Your task to perform on an android device: turn off sleep mode Image 0: 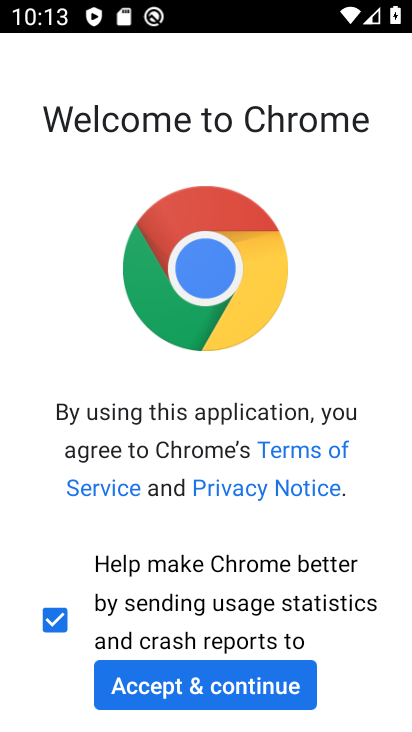
Step 0: click (143, 682)
Your task to perform on an android device: turn off sleep mode Image 1: 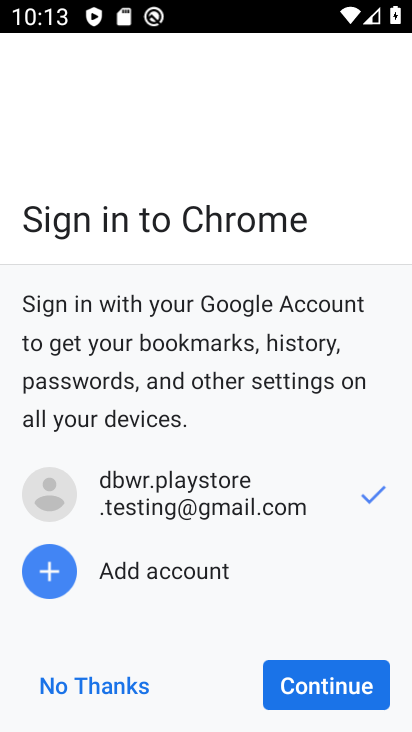
Step 1: click (282, 699)
Your task to perform on an android device: turn off sleep mode Image 2: 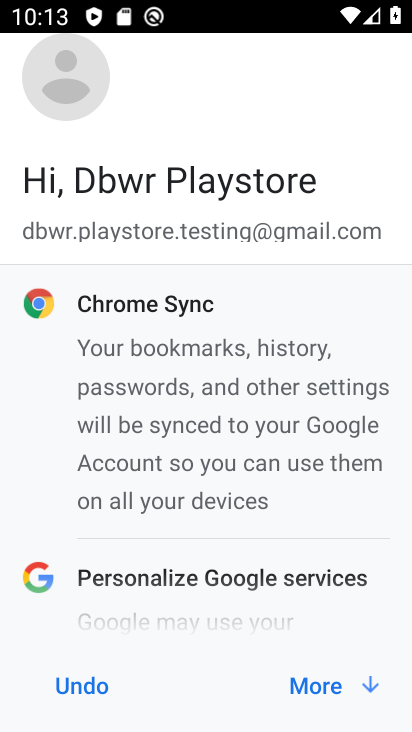
Step 2: click (302, 690)
Your task to perform on an android device: turn off sleep mode Image 3: 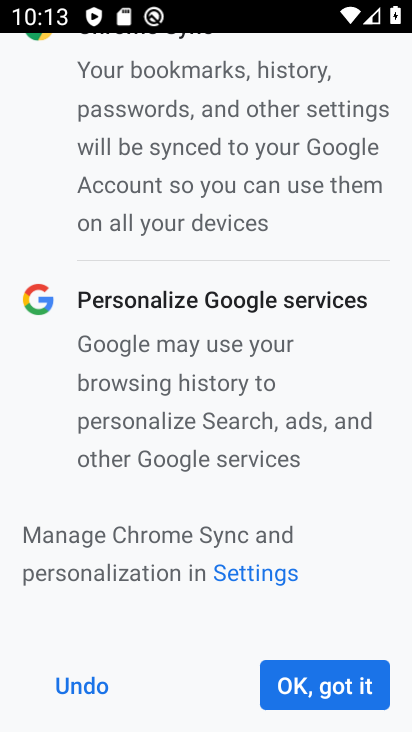
Step 3: click (296, 690)
Your task to perform on an android device: turn off sleep mode Image 4: 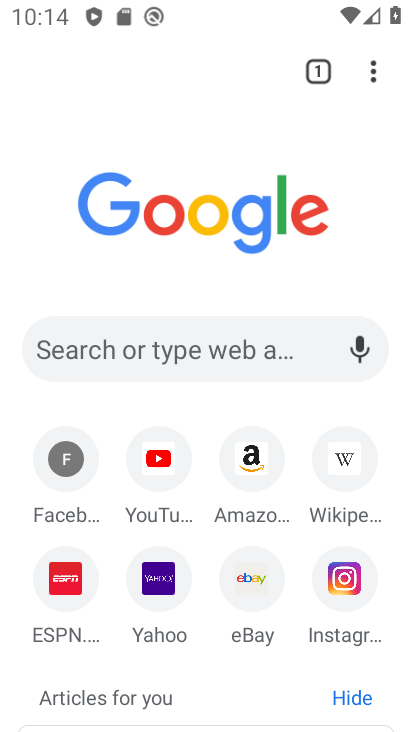
Step 4: press home button
Your task to perform on an android device: turn off sleep mode Image 5: 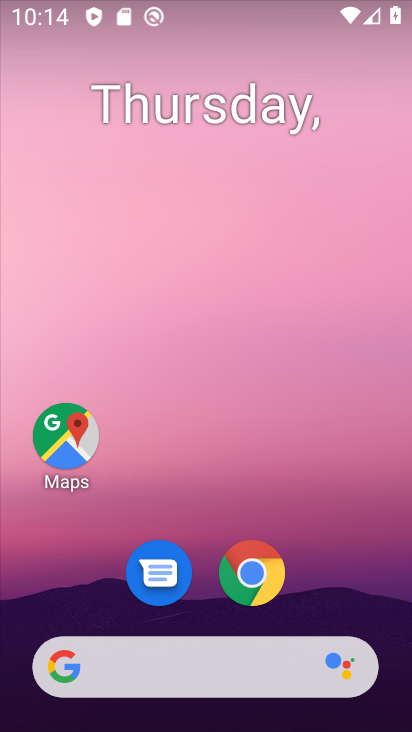
Step 5: drag from (353, 584) to (231, 122)
Your task to perform on an android device: turn off sleep mode Image 6: 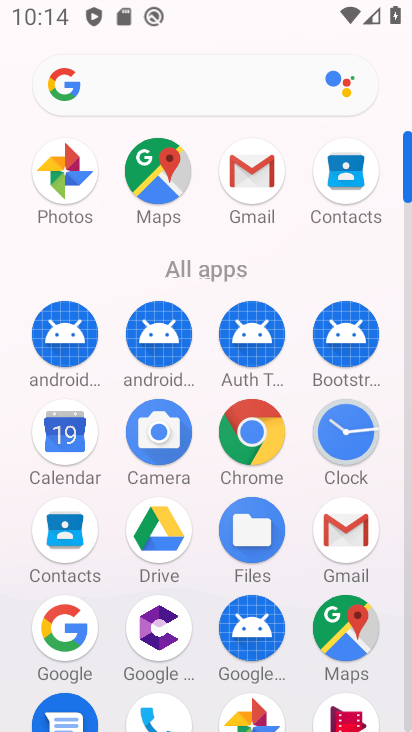
Step 6: drag from (201, 587) to (182, 296)
Your task to perform on an android device: turn off sleep mode Image 7: 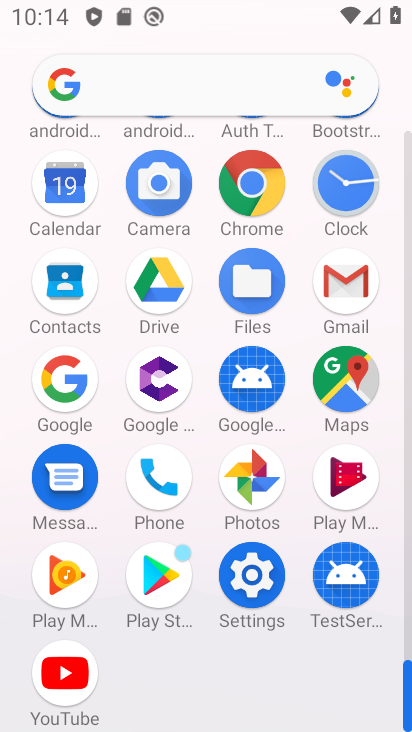
Step 7: click (254, 595)
Your task to perform on an android device: turn off sleep mode Image 8: 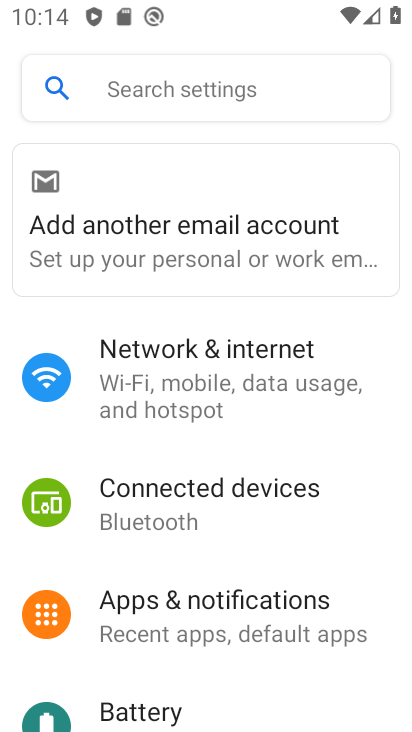
Step 8: drag from (225, 552) to (264, 268)
Your task to perform on an android device: turn off sleep mode Image 9: 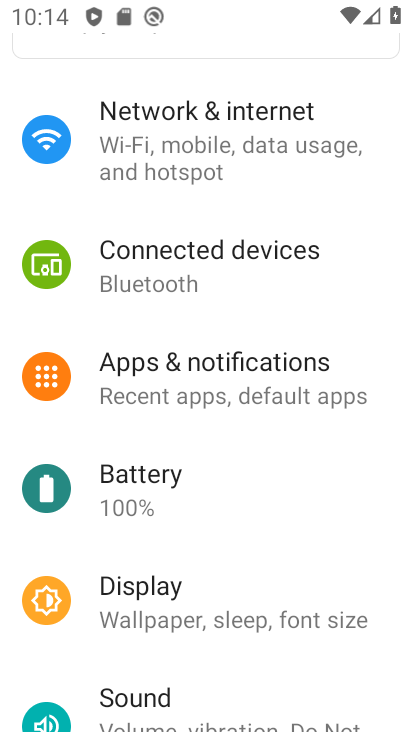
Step 9: drag from (192, 590) to (213, 331)
Your task to perform on an android device: turn off sleep mode Image 10: 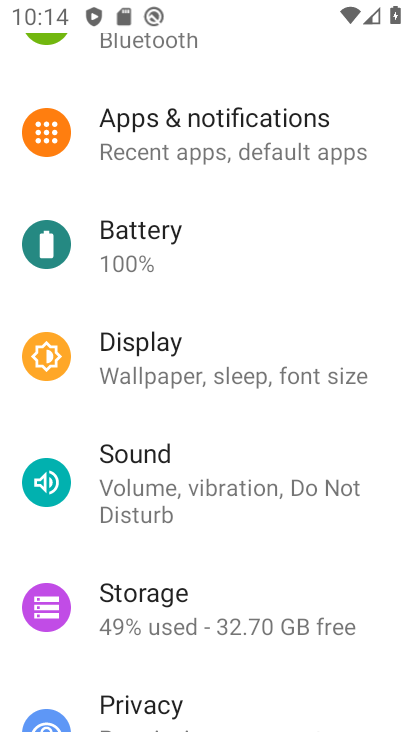
Step 10: click (188, 393)
Your task to perform on an android device: turn off sleep mode Image 11: 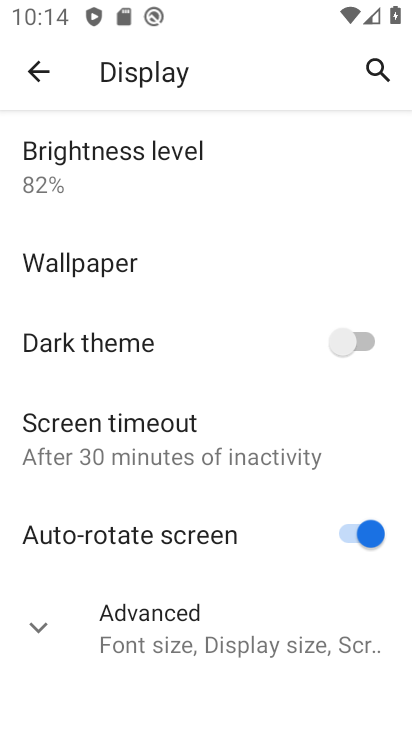
Step 11: click (142, 424)
Your task to perform on an android device: turn off sleep mode Image 12: 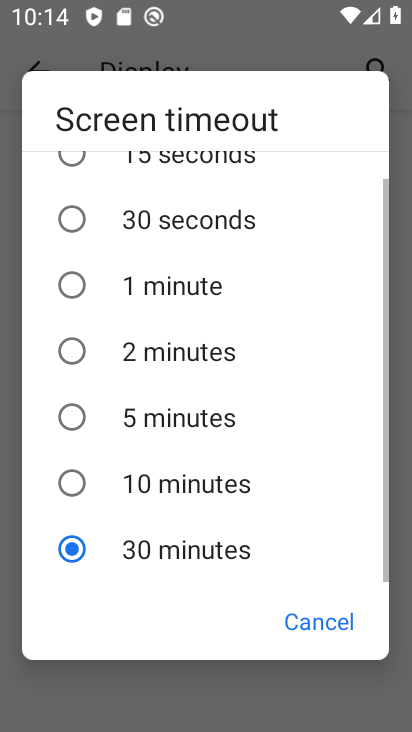
Step 12: task complete